Your task to perform on an android device: Go to Android settings Image 0: 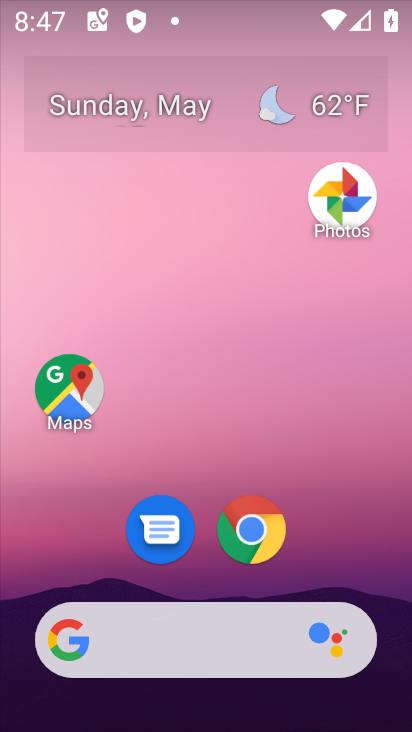
Step 0: drag from (369, 565) to (327, 133)
Your task to perform on an android device: Go to Android settings Image 1: 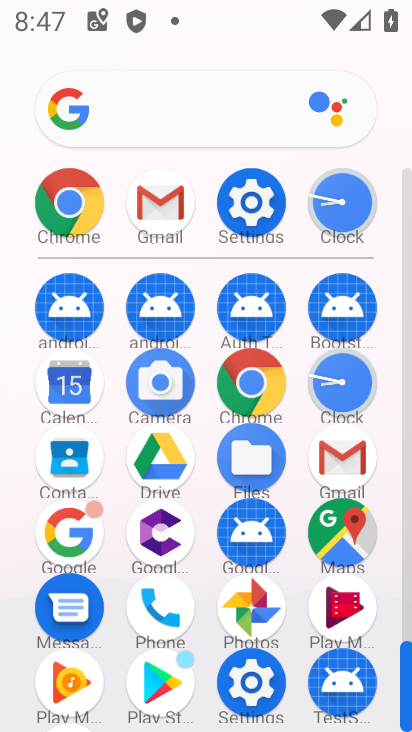
Step 1: click (237, 219)
Your task to perform on an android device: Go to Android settings Image 2: 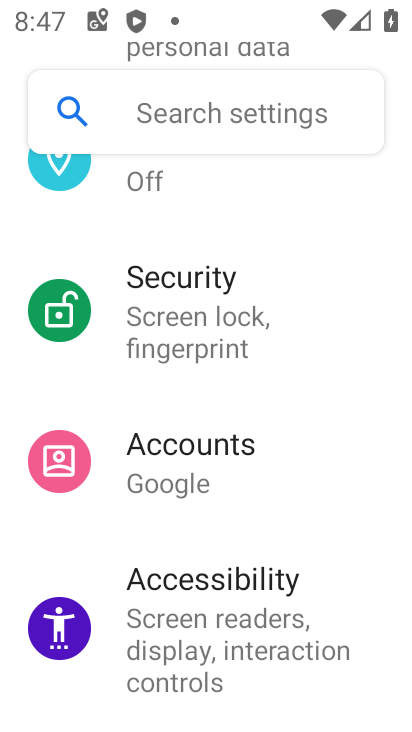
Step 2: drag from (227, 674) to (250, 363)
Your task to perform on an android device: Go to Android settings Image 3: 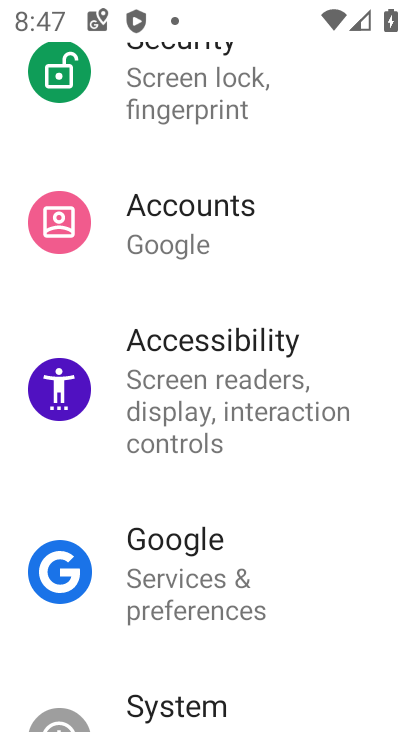
Step 3: drag from (266, 565) to (277, 257)
Your task to perform on an android device: Go to Android settings Image 4: 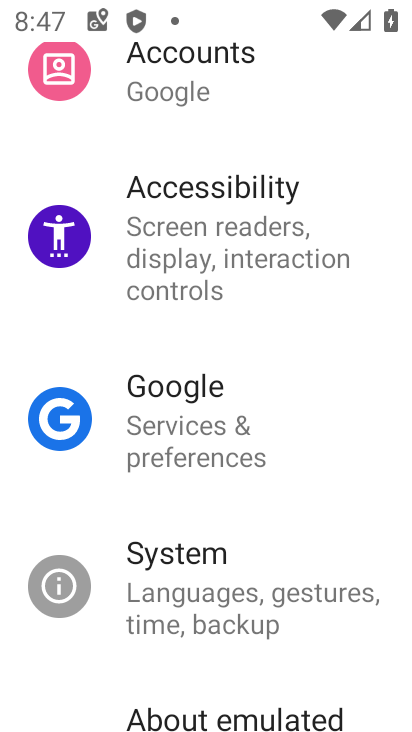
Step 4: drag from (342, 681) to (369, 237)
Your task to perform on an android device: Go to Android settings Image 5: 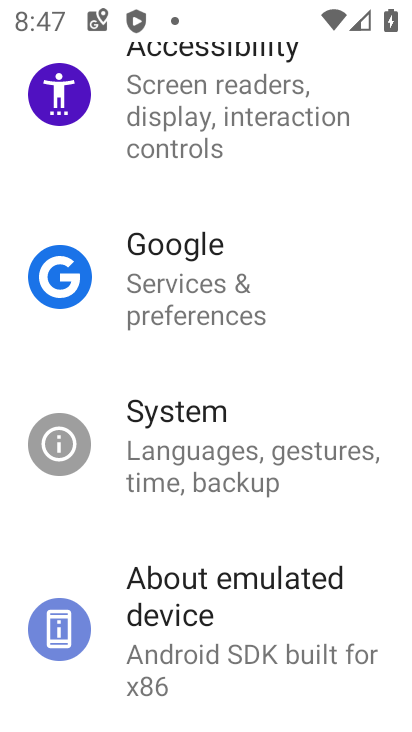
Step 5: click (294, 612)
Your task to perform on an android device: Go to Android settings Image 6: 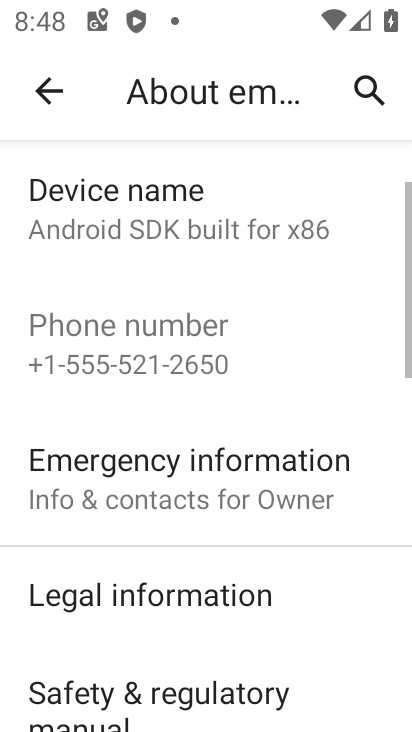
Step 6: task complete